Your task to perform on an android device: Open my contact list Image 0: 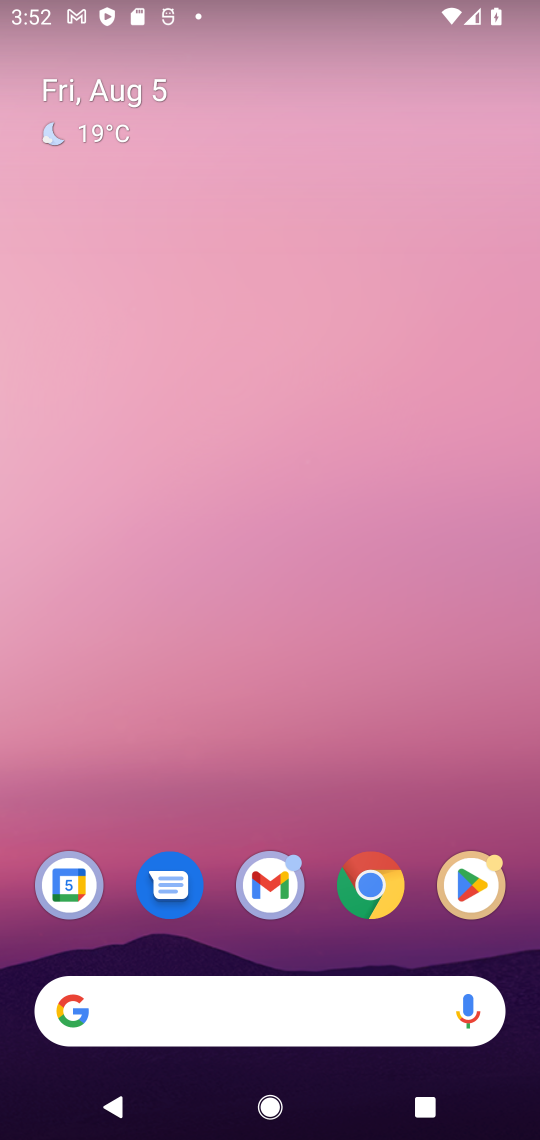
Step 0: drag from (312, 958) to (261, 177)
Your task to perform on an android device: Open my contact list Image 1: 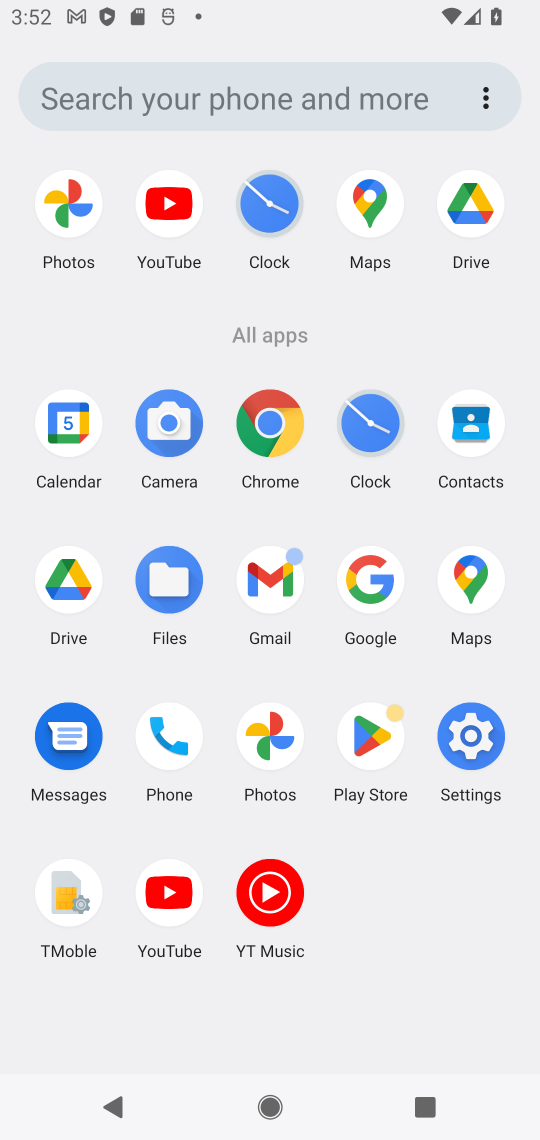
Step 1: click (485, 418)
Your task to perform on an android device: Open my contact list Image 2: 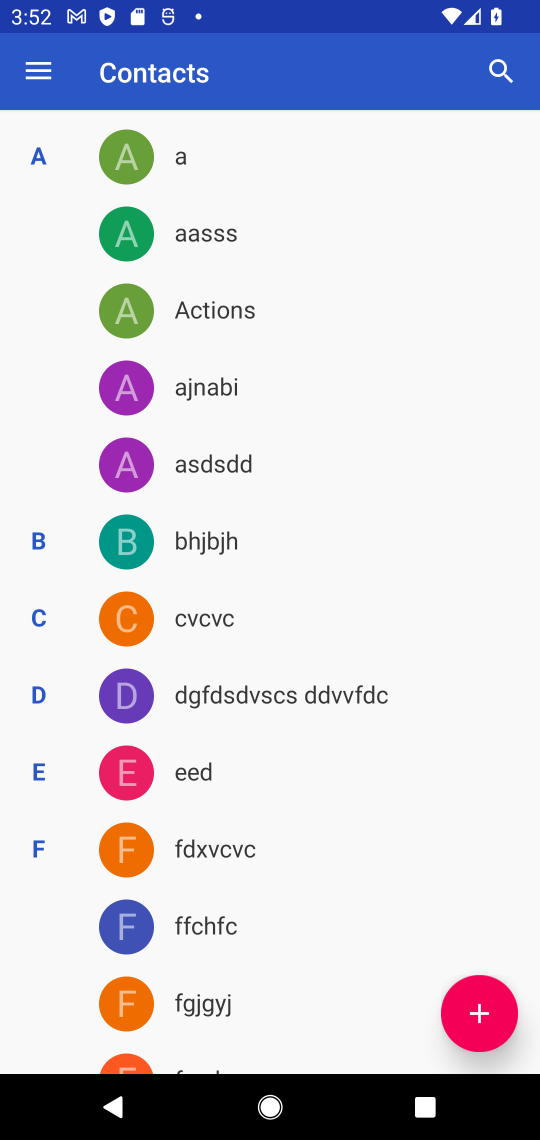
Step 2: task complete